Your task to perform on an android device: toggle priority inbox in the gmail app Image 0: 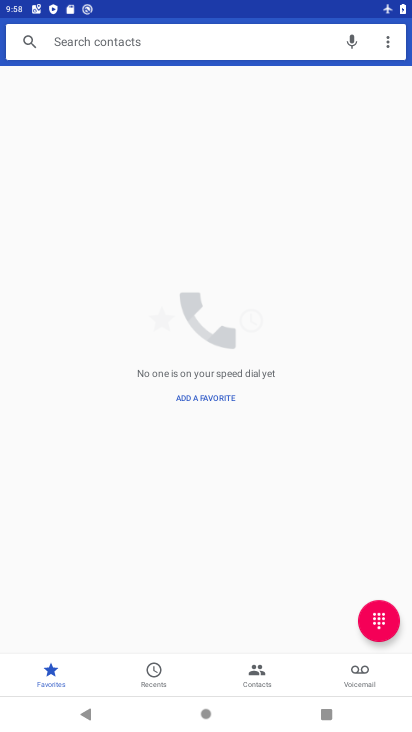
Step 0: press home button
Your task to perform on an android device: toggle priority inbox in the gmail app Image 1: 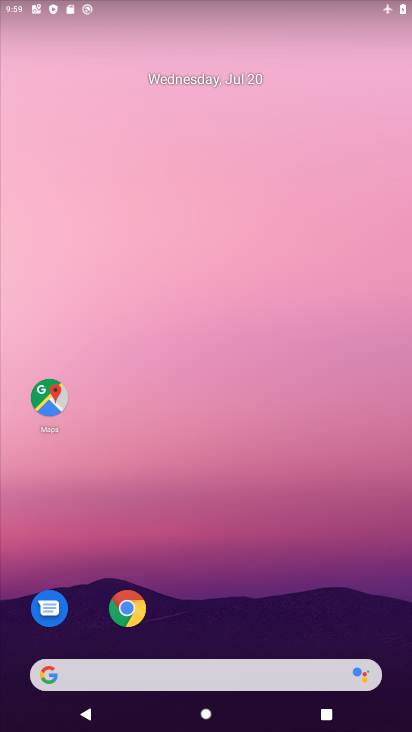
Step 1: drag from (183, 675) to (236, 241)
Your task to perform on an android device: toggle priority inbox in the gmail app Image 2: 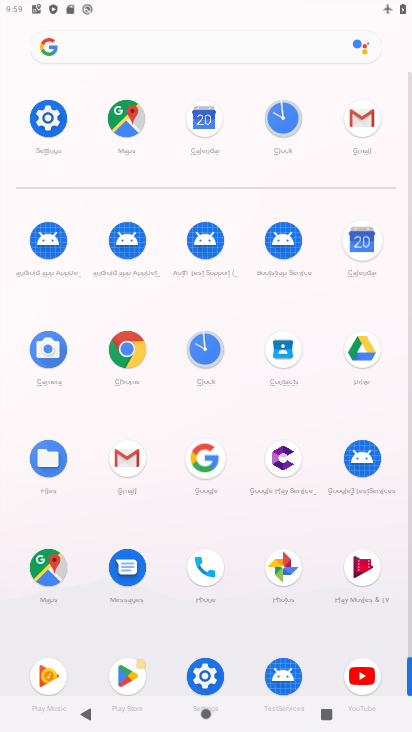
Step 2: click (363, 123)
Your task to perform on an android device: toggle priority inbox in the gmail app Image 3: 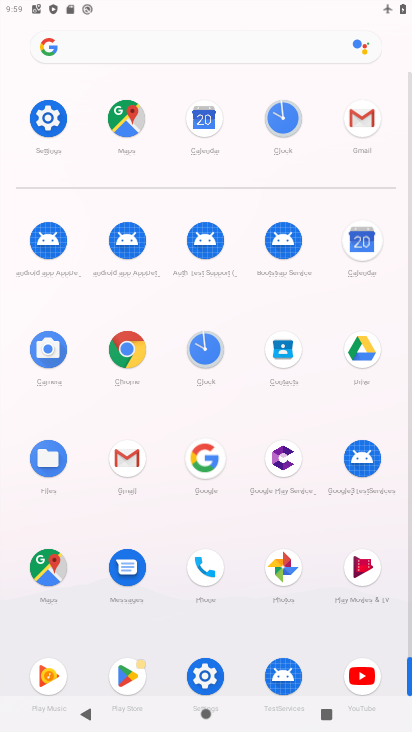
Step 3: click (363, 123)
Your task to perform on an android device: toggle priority inbox in the gmail app Image 4: 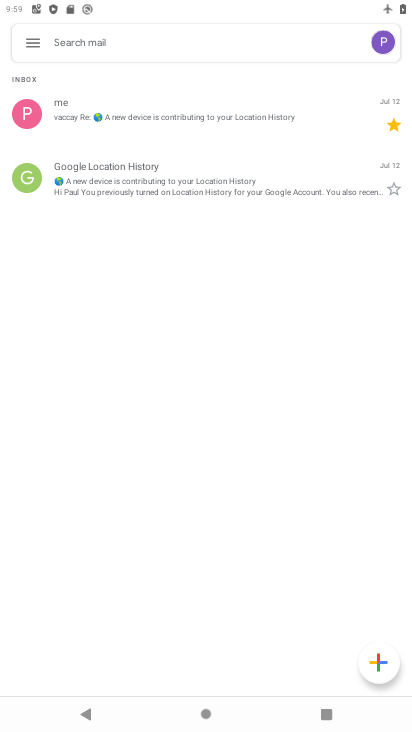
Step 4: click (40, 42)
Your task to perform on an android device: toggle priority inbox in the gmail app Image 5: 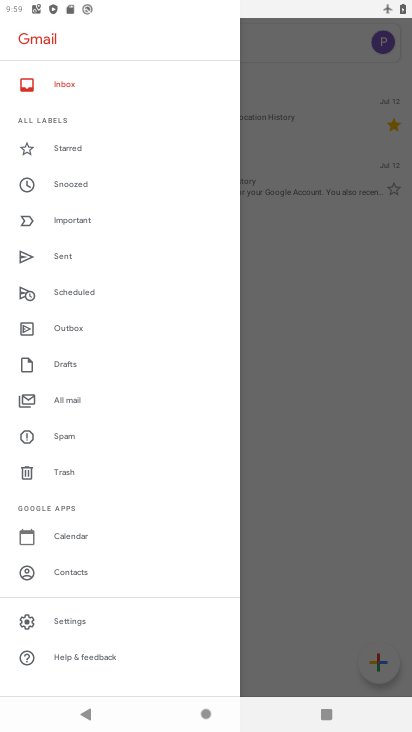
Step 5: click (137, 623)
Your task to perform on an android device: toggle priority inbox in the gmail app Image 6: 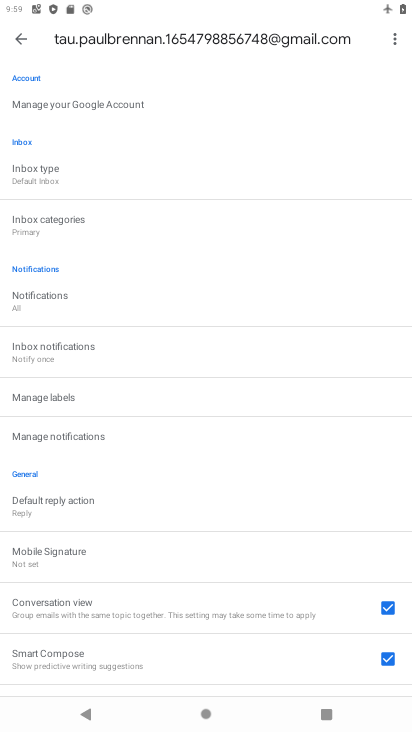
Step 6: click (76, 170)
Your task to perform on an android device: toggle priority inbox in the gmail app Image 7: 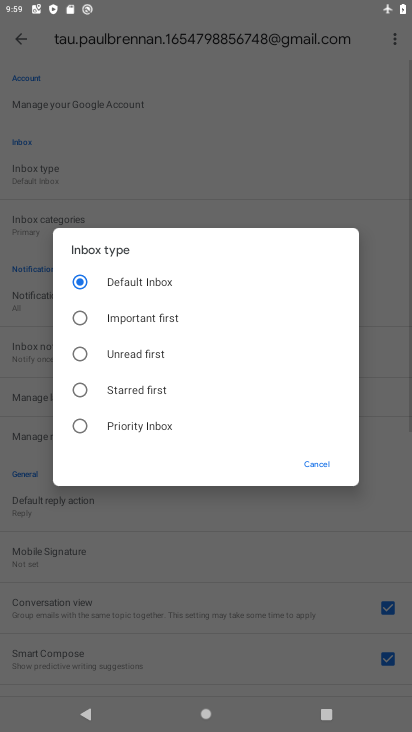
Step 7: click (153, 418)
Your task to perform on an android device: toggle priority inbox in the gmail app Image 8: 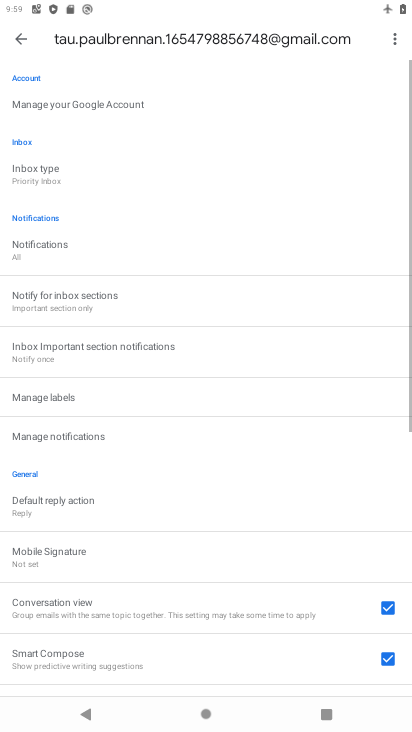
Step 8: task complete